Your task to perform on an android device: turn on the 12-hour format for clock Image 0: 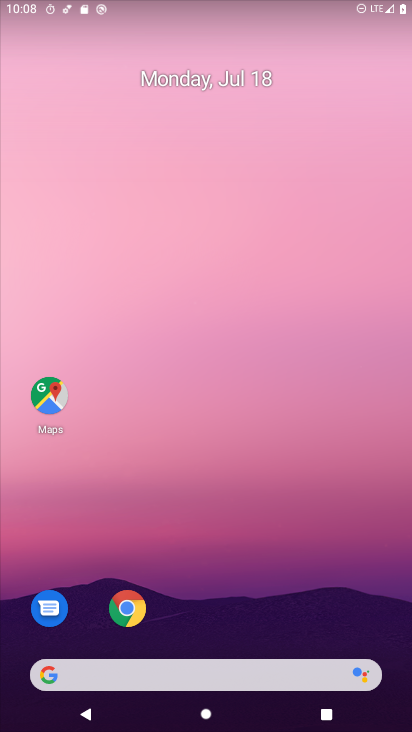
Step 0: drag from (193, 590) to (193, 169)
Your task to perform on an android device: turn on the 12-hour format for clock Image 1: 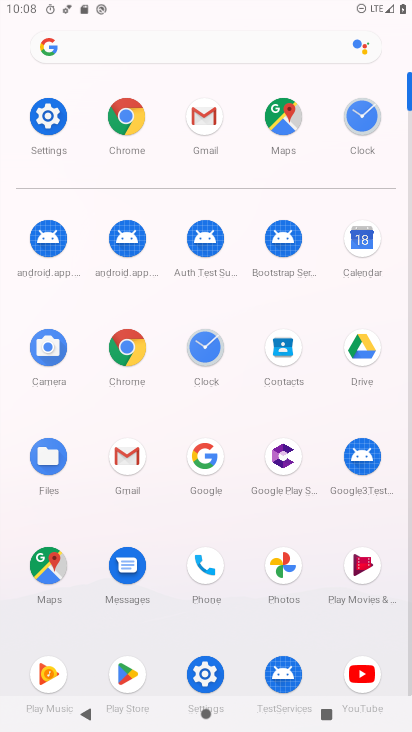
Step 1: click (202, 373)
Your task to perform on an android device: turn on the 12-hour format for clock Image 2: 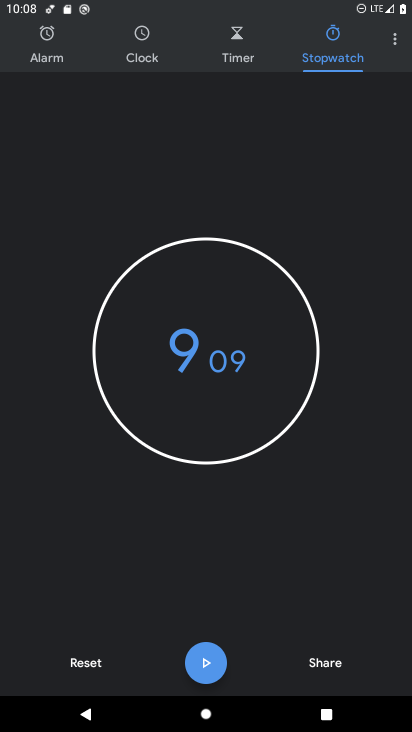
Step 2: click (398, 34)
Your task to perform on an android device: turn on the 12-hour format for clock Image 3: 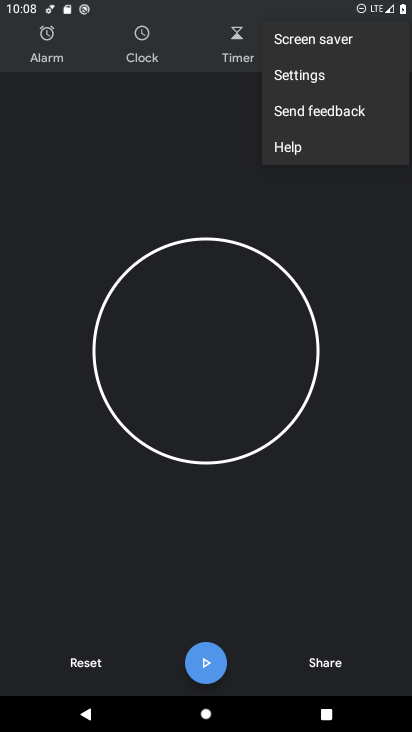
Step 3: click (304, 74)
Your task to perform on an android device: turn on the 12-hour format for clock Image 4: 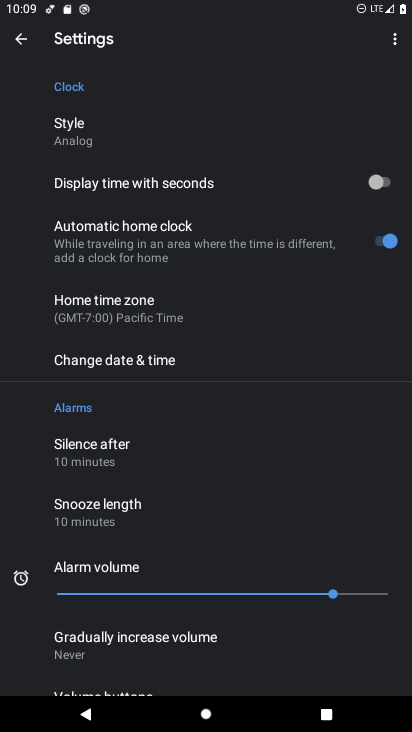
Step 4: click (164, 359)
Your task to perform on an android device: turn on the 12-hour format for clock Image 5: 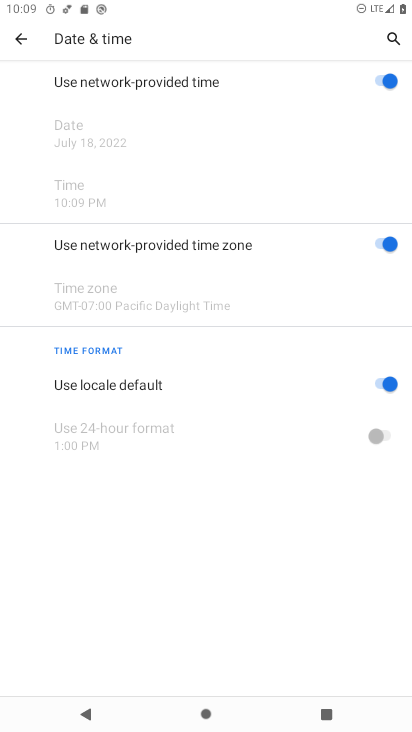
Step 5: task complete